Your task to perform on an android device: Show me productivity apps on the Play Store Image 0: 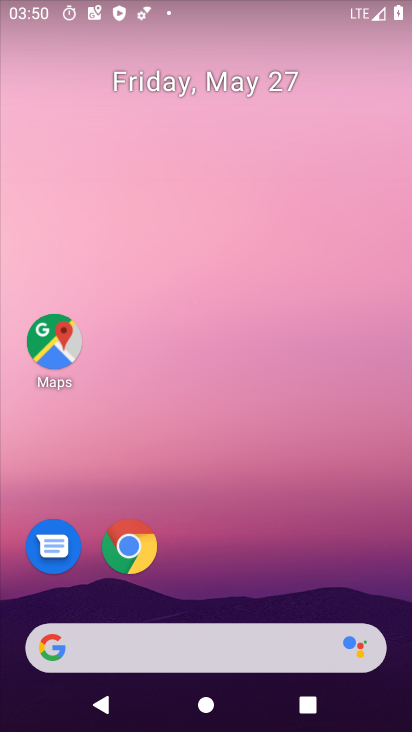
Step 0: drag from (392, 695) to (328, 117)
Your task to perform on an android device: Show me productivity apps on the Play Store Image 1: 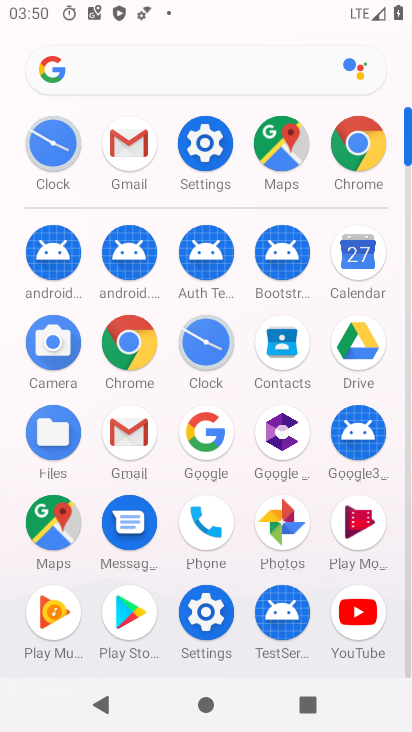
Step 1: click (113, 622)
Your task to perform on an android device: Show me productivity apps on the Play Store Image 2: 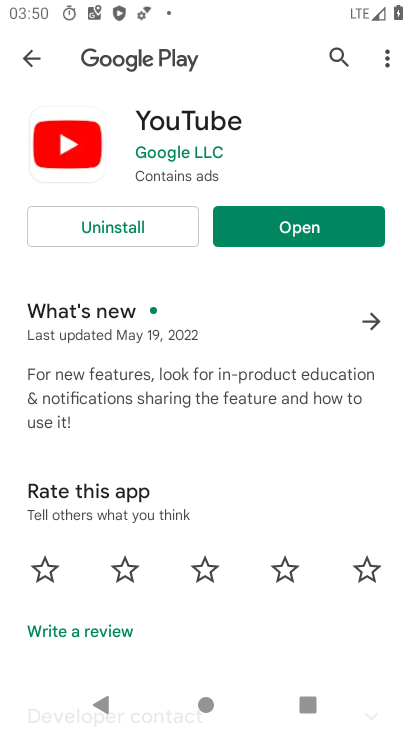
Step 2: press back button
Your task to perform on an android device: Show me productivity apps on the Play Store Image 3: 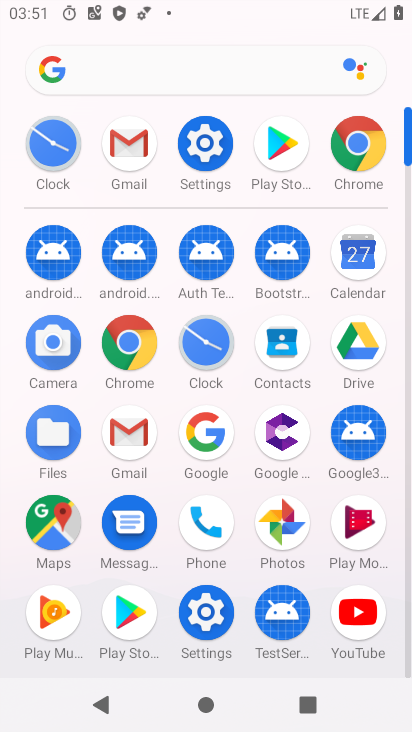
Step 3: click (133, 611)
Your task to perform on an android device: Show me productivity apps on the Play Store Image 4: 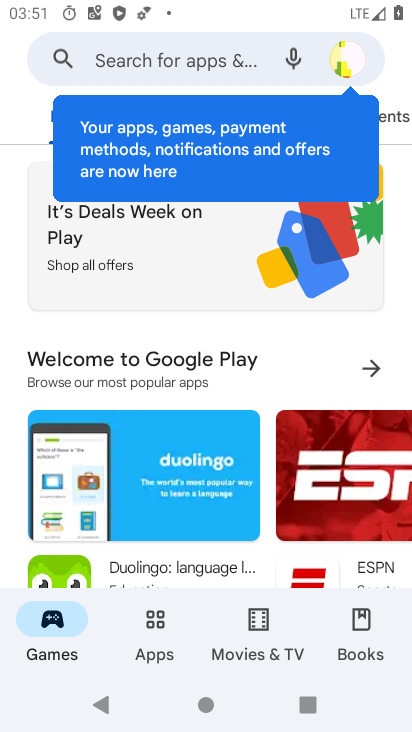
Step 4: click (135, 61)
Your task to perform on an android device: Show me productivity apps on the Play Store Image 5: 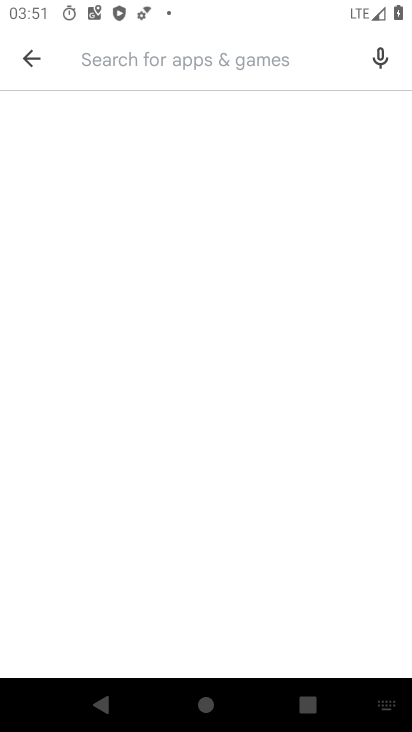
Step 5: type "productivity apps"
Your task to perform on an android device: Show me productivity apps on the Play Store Image 6: 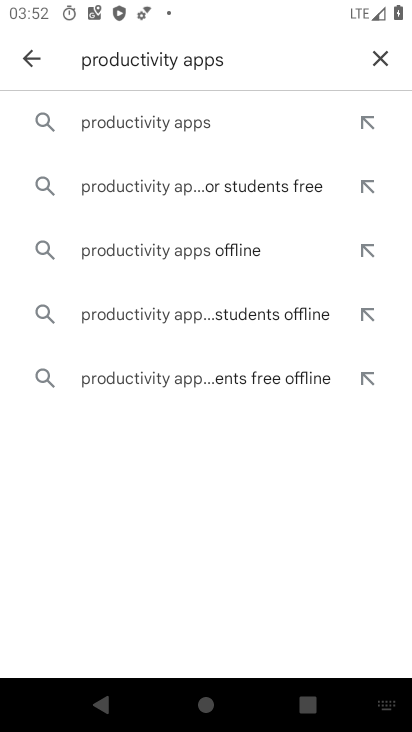
Step 6: click (101, 121)
Your task to perform on an android device: Show me productivity apps on the Play Store Image 7: 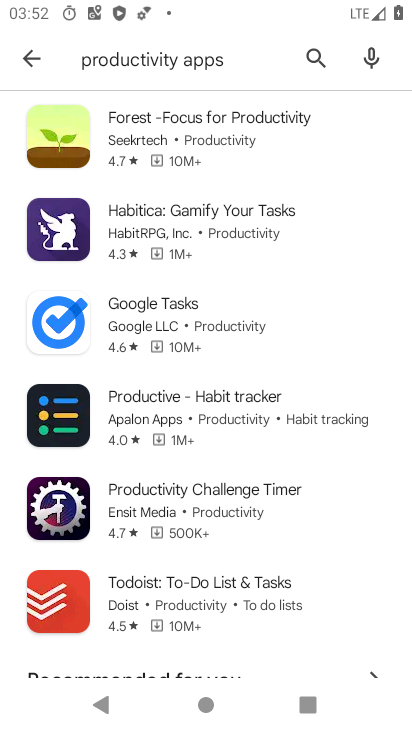
Step 7: task complete